Your task to perform on an android device: Go to privacy settings Image 0: 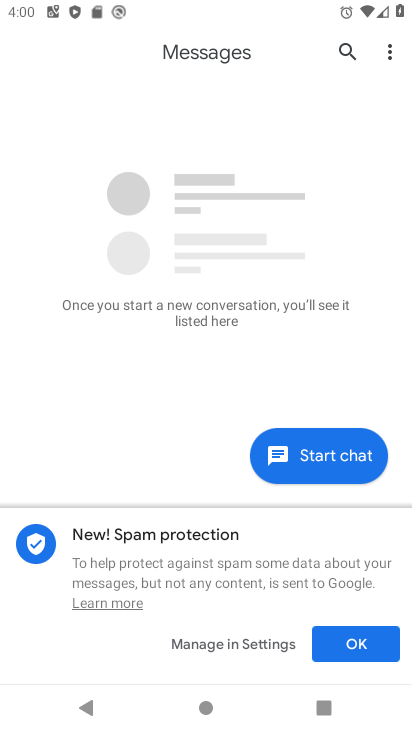
Step 0: press home button
Your task to perform on an android device: Go to privacy settings Image 1: 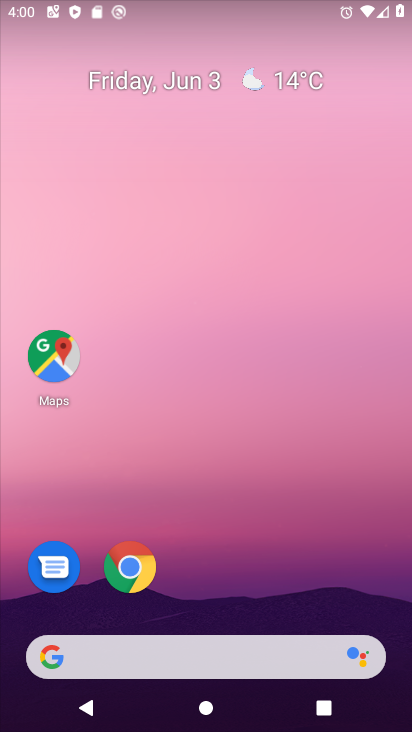
Step 1: drag from (177, 692) to (129, 154)
Your task to perform on an android device: Go to privacy settings Image 2: 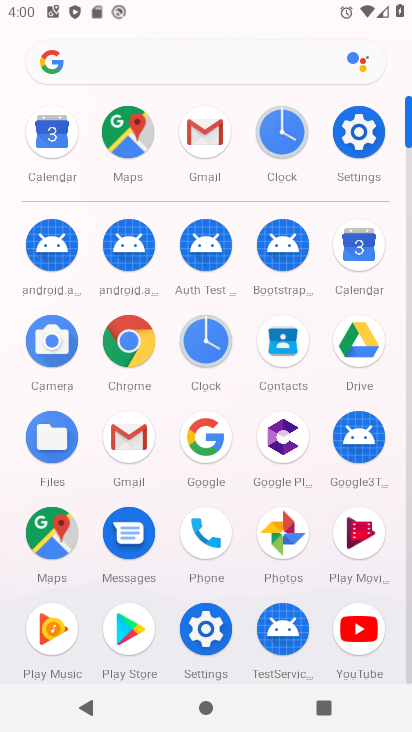
Step 2: click (207, 637)
Your task to perform on an android device: Go to privacy settings Image 3: 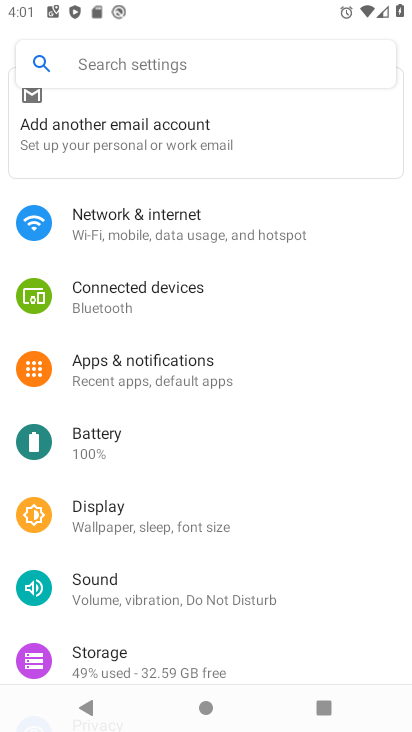
Step 3: drag from (140, 642) to (152, 539)
Your task to perform on an android device: Go to privacy settings Image 4: 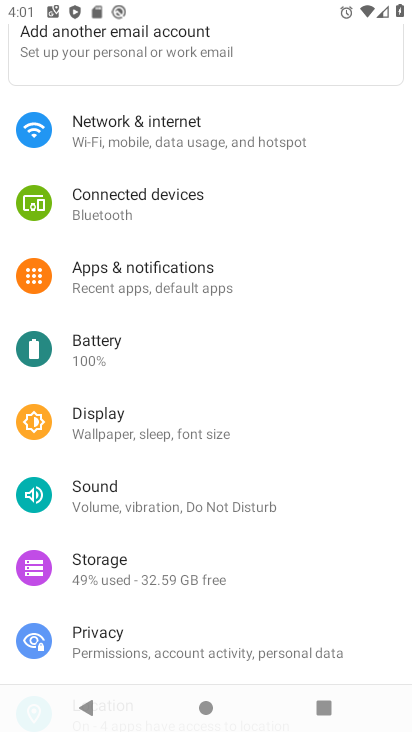
Step 4: click (127, 627)
Your task to perform on an android device: Go to privacy settings Image 5: 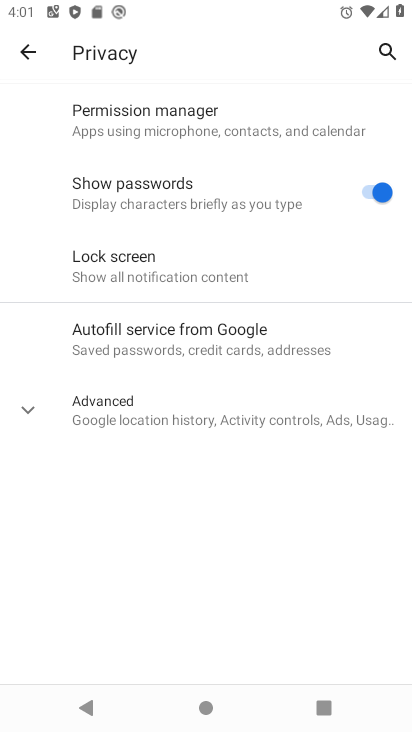
Step 5: task complete